Your task to perform on an android device: turn off data saver in the chrome app Image 0: 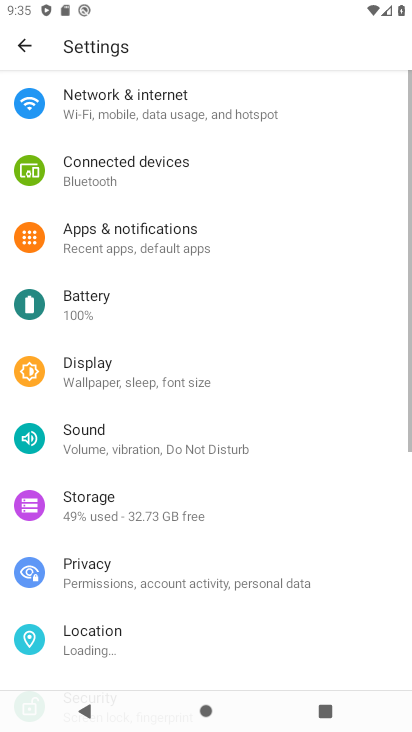
Step 0: press back button
Your task to perform on an android device: turn off data saver in the chrome app Image 1: 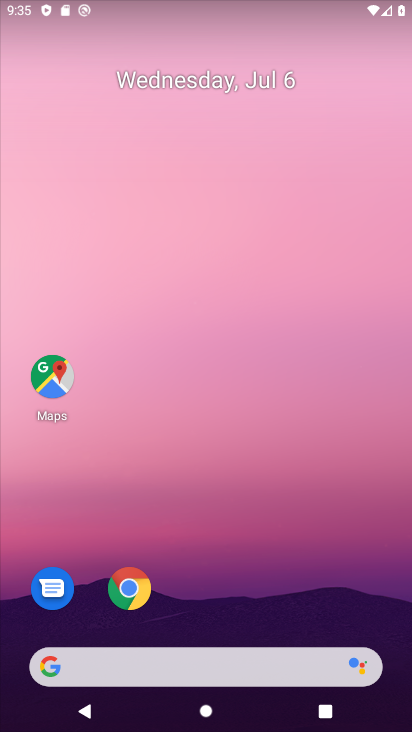
Step 1: drag from (203, 586) to (292, 7)
Your task to perform on an android device: turn off data saver in the chrome app Image 2: 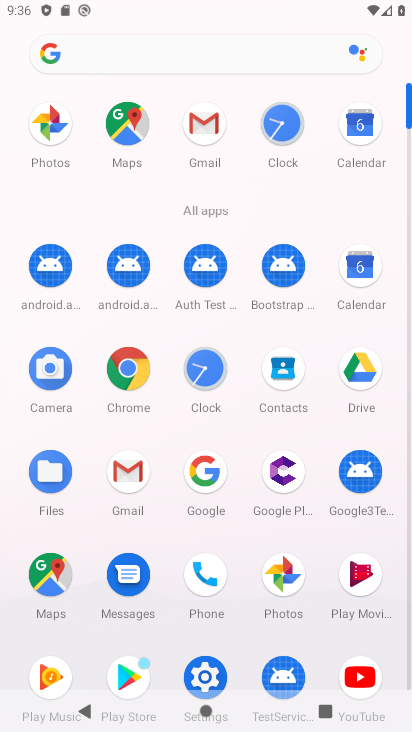
Step 2: click (126, 368)
Your task to perform on an android device: turn off data saver in the chrome app Image 3: 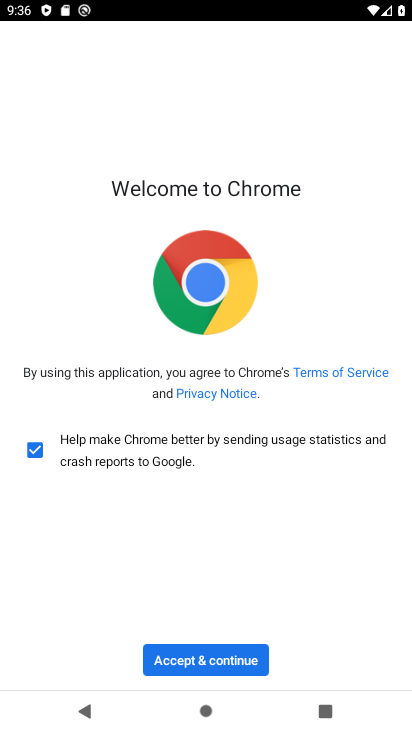
Step 3: click (216, 661)
Your task to perform on an android device: turn off data saver in the chrome app Image 4: 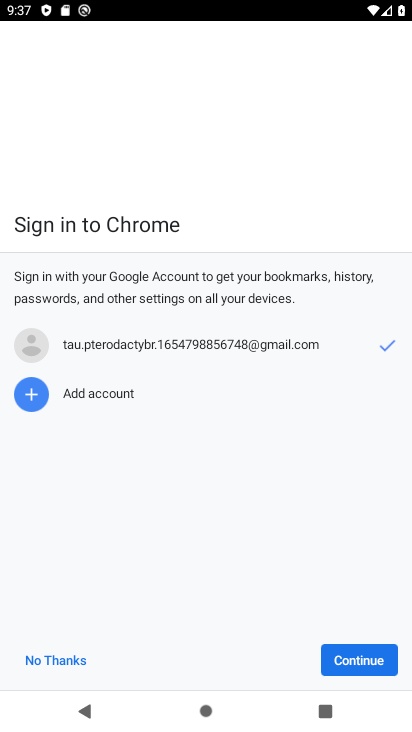
Step 4: click (382, 654)
Your task to perform on an android device: turn off data saver in the chrome app Image 5: 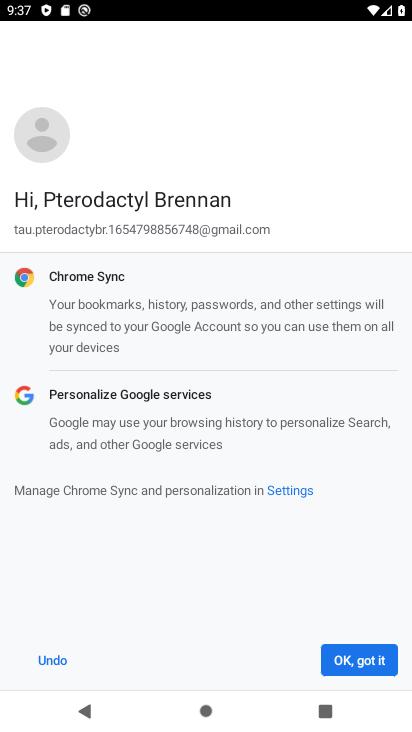
Step 5: click (363, 657)
Your task to perform on an android device: turn off data saver in the chrome app Image 6: 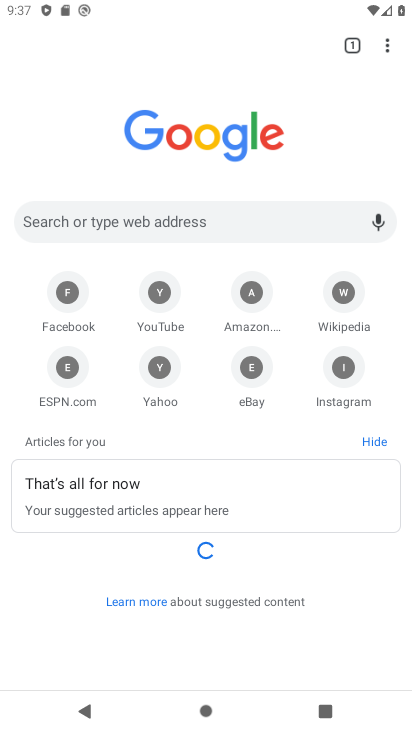
Step 6: click (386, 43)
Your task to perform on an android device: turn off data saver in the chrome app Image 7: 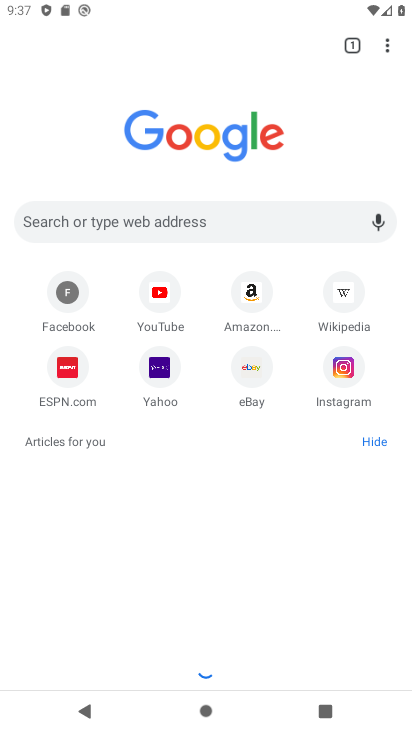
Step 7: drag from (388, 48) to (257, 383)
Your task to perform on an android device: turn off data saver in the chrome app Image 8: 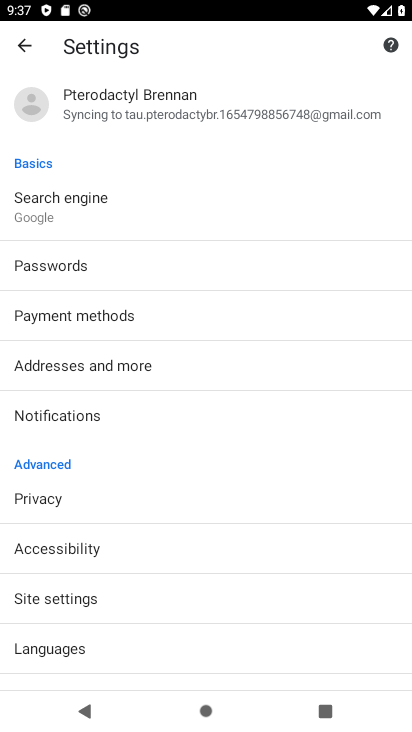
Step 8: drag from (121, 619) to (194, 210)
Your task to perform on an android device: turn off data saver in the chrome app Image 9: 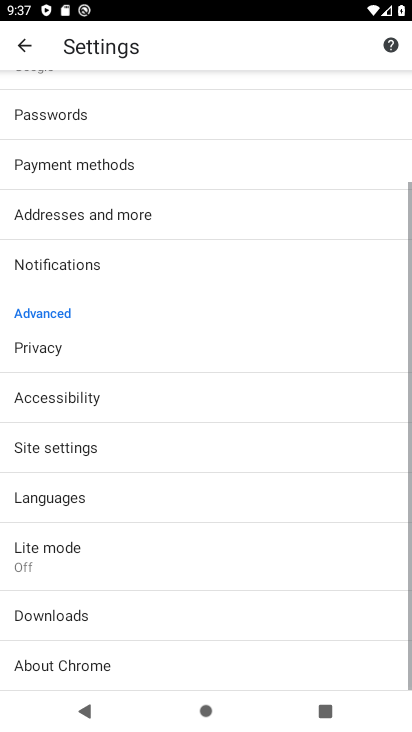
Step 9: click (41, 567)
Your task to perform on an android device: turn off data saver in the chrome app Image 10: 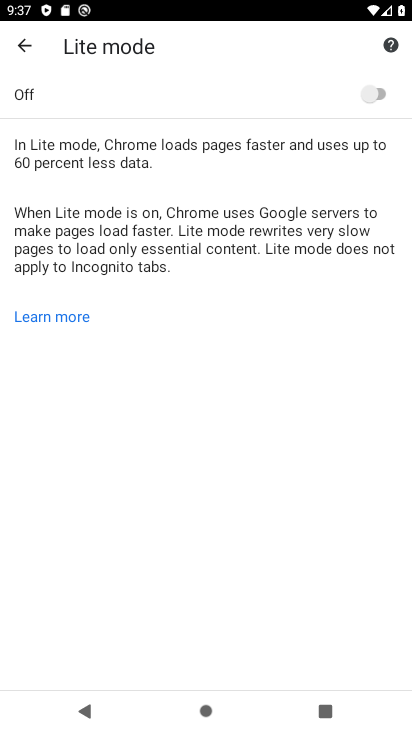
Step 10: task complete